Your task to perform on an android device: delete the emails in spam in the gmail app Image 0: 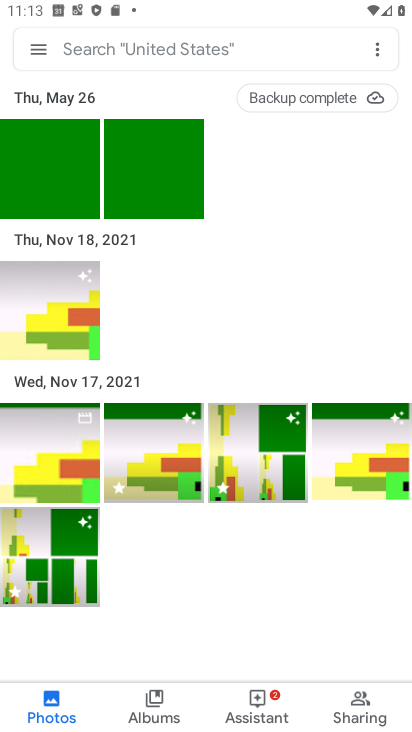
Step 0: press home button
Your task to perform on an android device: delete the emails in spam in the gmail app Image 1: 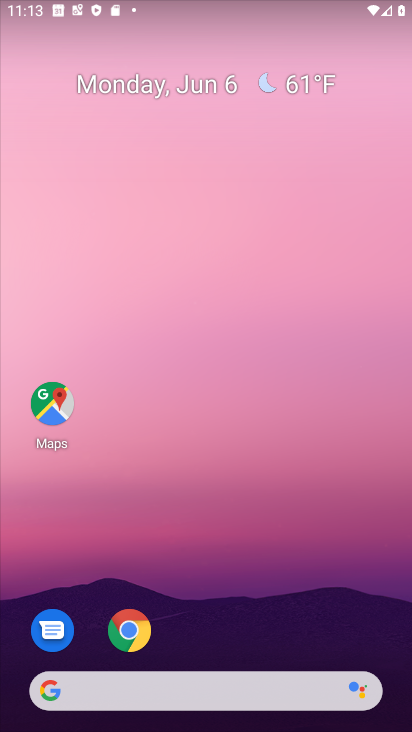
Step 1: drag from (340, 629) to (348, 193)
Your task to perform on an android device: delete the emails in spam in the gmail app Image 2: 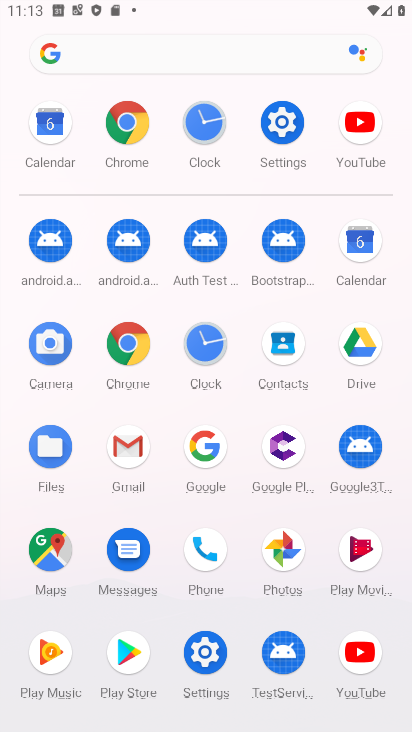
Step 2: click (118, 470)
Your task to perform on an android device: delete the emails in spam in the gmail app Image 3: 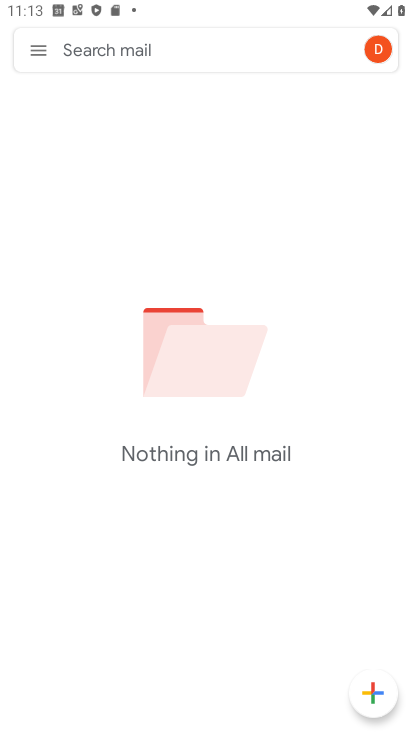
Step 3: click (50, 39)
Your task to perform on an android device: delete the emails in spam in the gmail app Image 4: 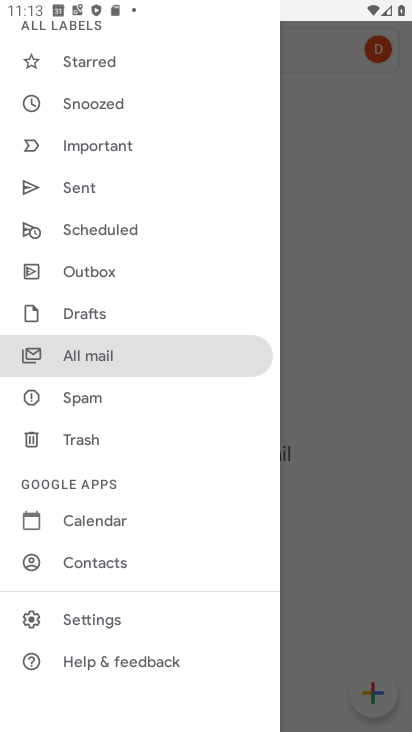
Step 4: click (112, 405)
Your task to perform on an android device: delete the emails in spam in the gmail app Image 5: 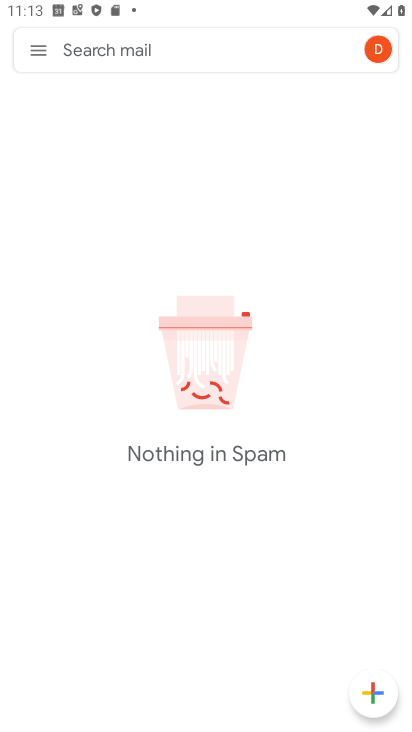
Step 5: task complete